Your task to perform on an android device: turn notification dots on Image 0: 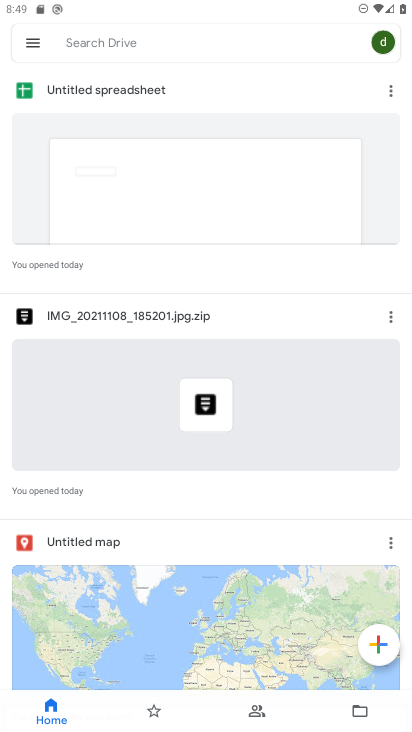
Step 0: press home button
Your task to perform on an android device: turn notification dots on Image 1: 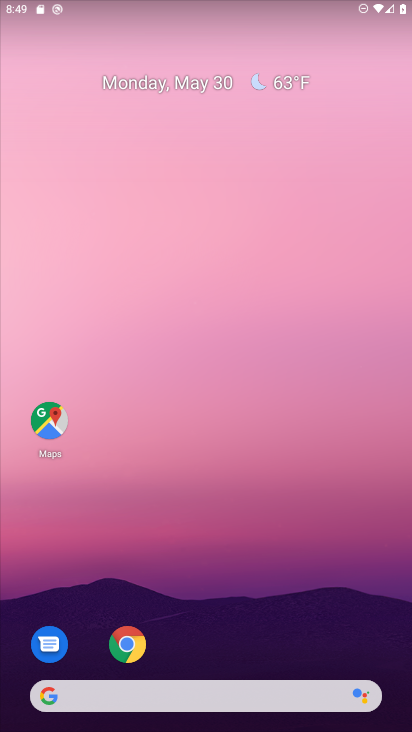
Step 1: drag from (221, 625) to (228, 48)
Your task to perform on an android device: turn notification dots on Image 2: 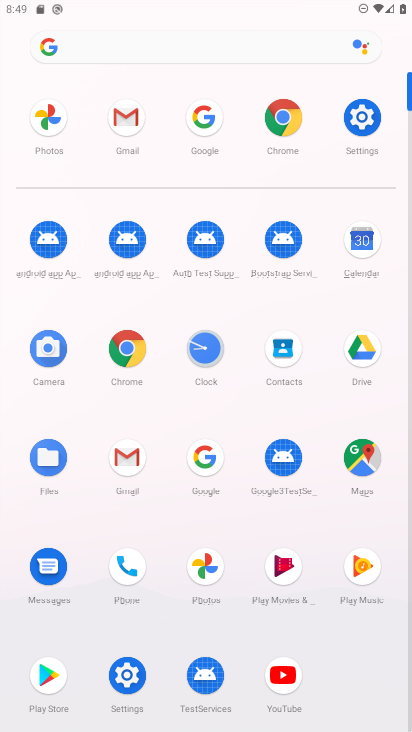
Step 2: click (361, 118)
Your task to perform on an android device: turn notification dots on Image 3: 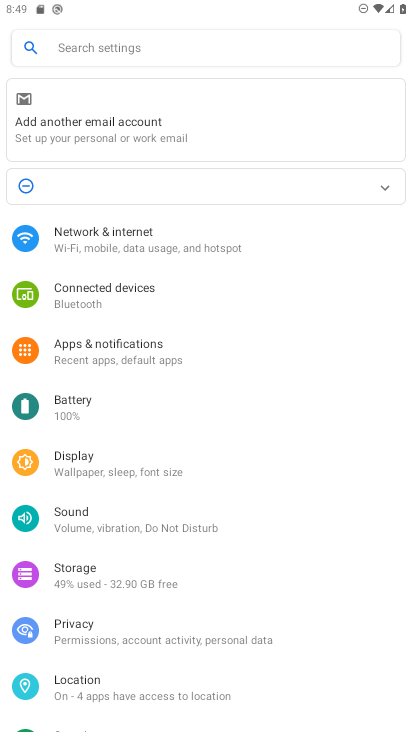
Step 3: drag from (191, 561) to (191, 194)
Your task to perform on an android device: turn notification dots on Image 4: 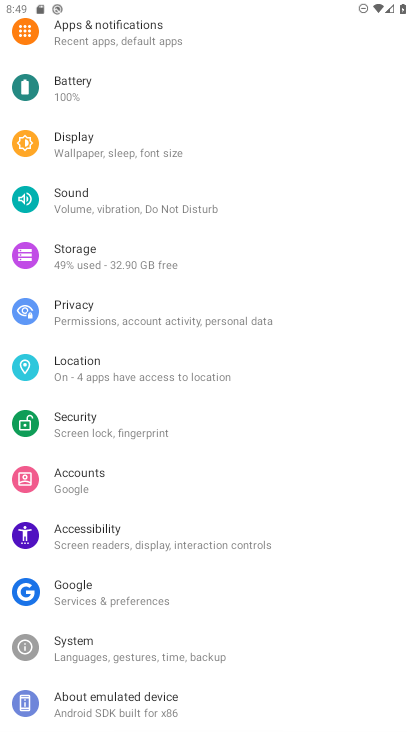
Step 4: drag from (143, 115) to (144, 487)
Your task to perform on an android device: turn notification dots on Image 5: 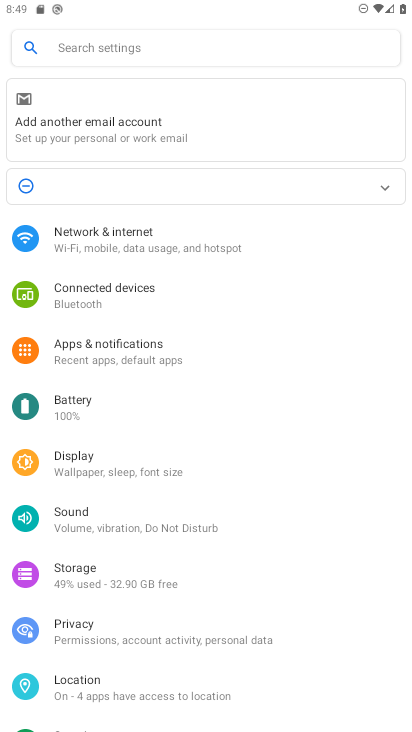
Step 5: click (147, 350)
Your task to perform on an android device: turn notification dots on Image 6: 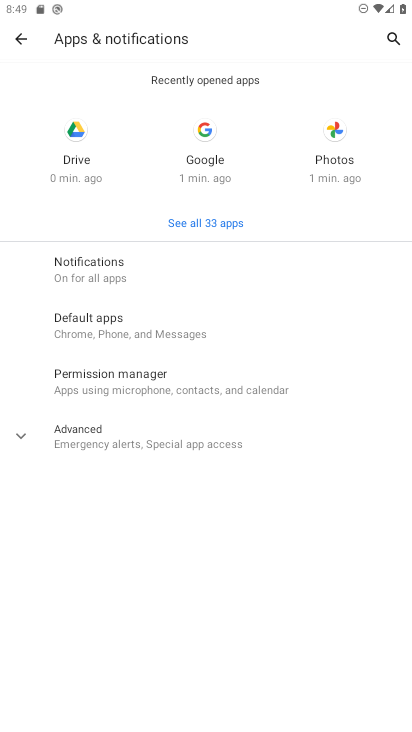
Step 6: click (156, 270)
Your task to perform on an android device: turn notification dots on Image 7: 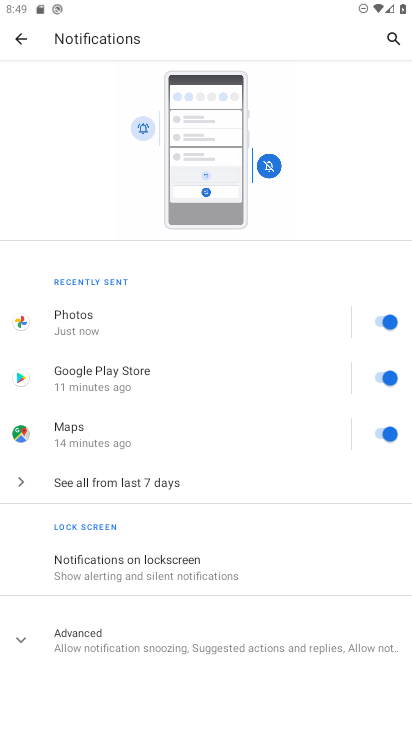
Step 7: click (111, 636)
Your task to perform on an android device: turn notification dots on Image 8: 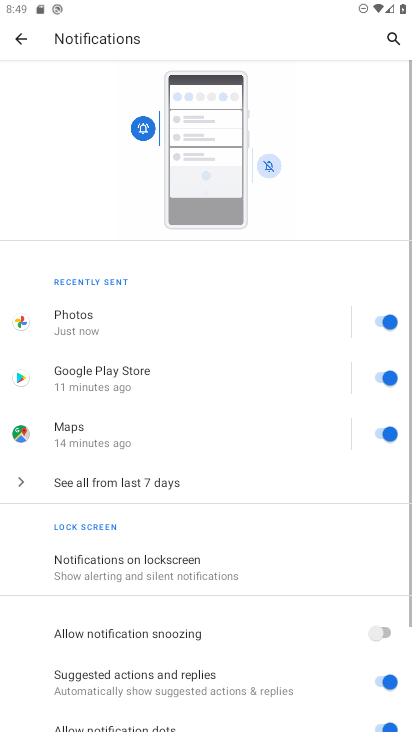
Step 8: task complete